Your task to perform on an android device: manage bookmarks in the chrome app Image 0: 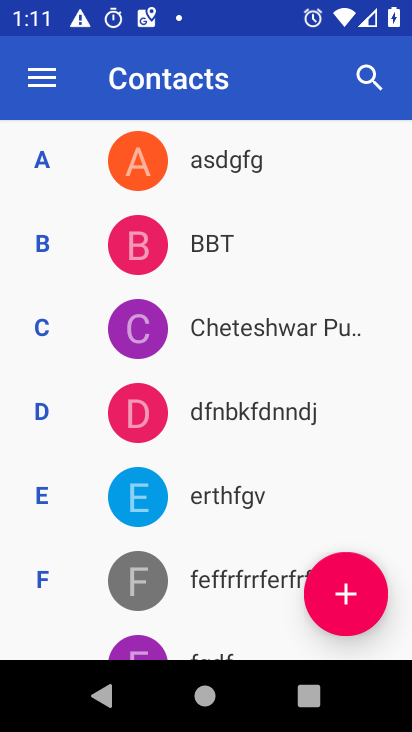
Step 0: press back button
Your task to perform on an android device: manage bookmarks in the chrome app Image 1: 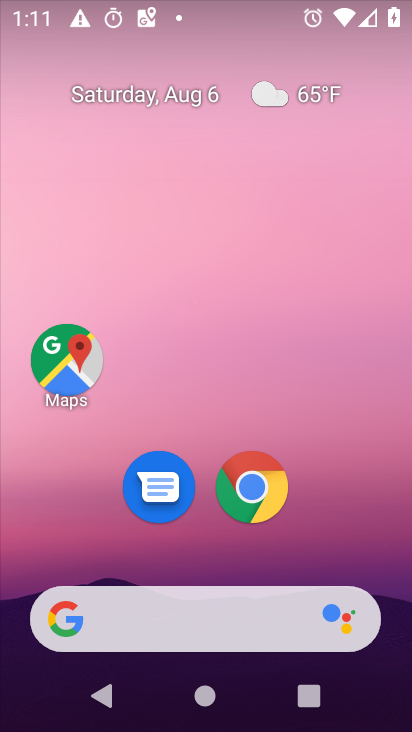
Step 1: click (249, 484)
Your task to perform on an android device: manage bookmarks in the chrome app Image 2: 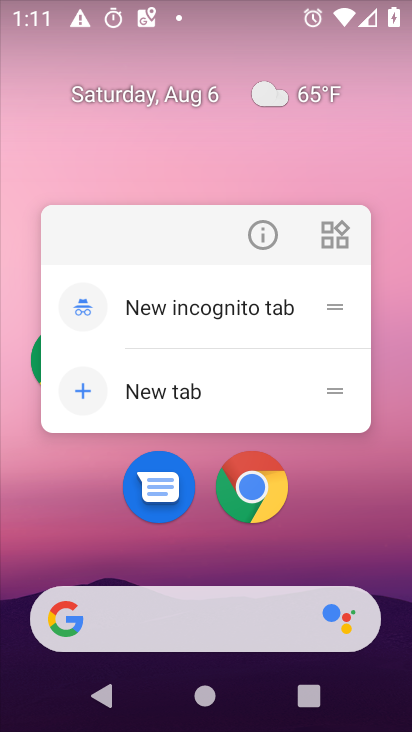
Step 2: click (254, 480)
Your task to perform on an android device: manage bookmarks in the chrome app Image 3: 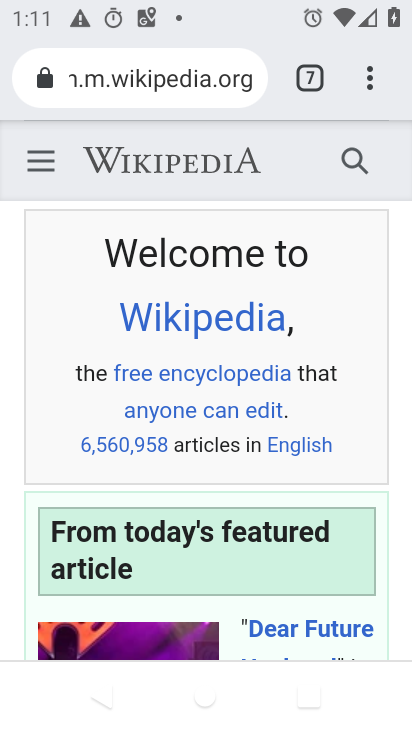
Step 3: drag from (377, 76) to (123, 545)
Your task to perform on an android device: manage bookmarks in the chrome app Image 4: 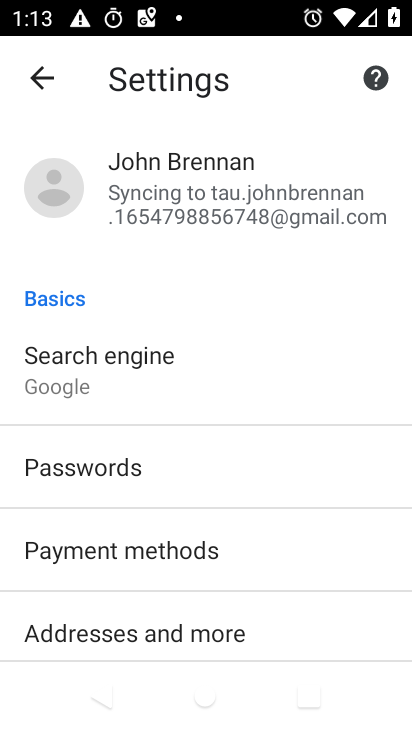
Step 4: click (31, 71)
Your task to perform on an android device: manage bookmarks in the chrome app Image 5: 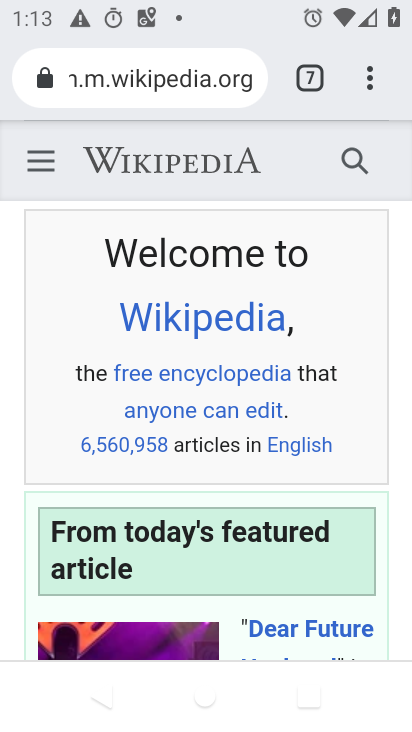
Step 5: drag from (370, 71) to (111, 290)
Your task to perform on an android device: manage bookmarks in the chrome app Image 6: 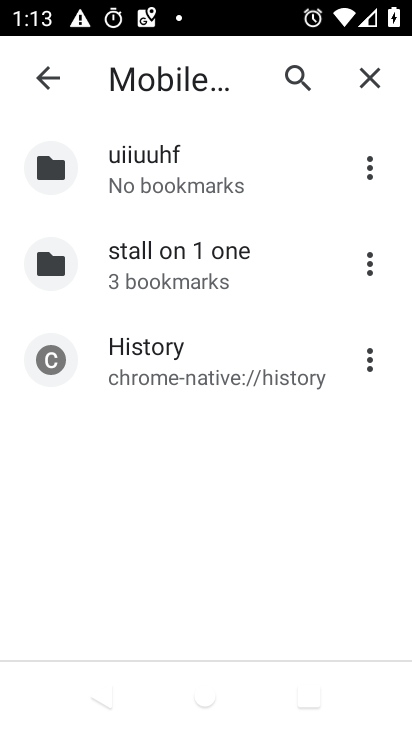
Step 6: click (187, 164)
Your task to perform on an android device: manage bookmarks in the chrome app Image 7: 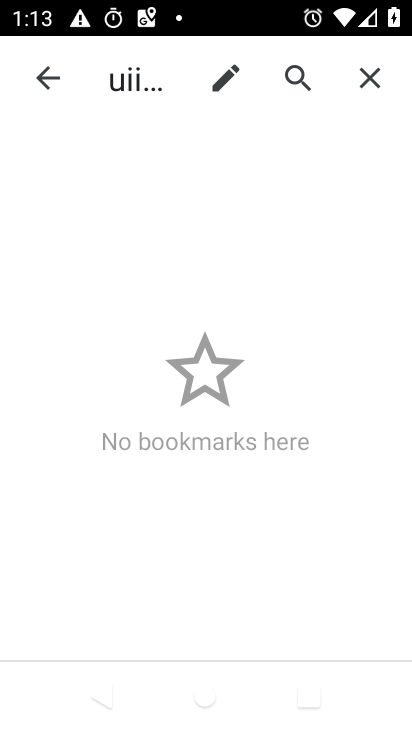
Step 7: click (46, 74)
Your task to perform on an android device: manage bookmarks in the chrome app Image 8: 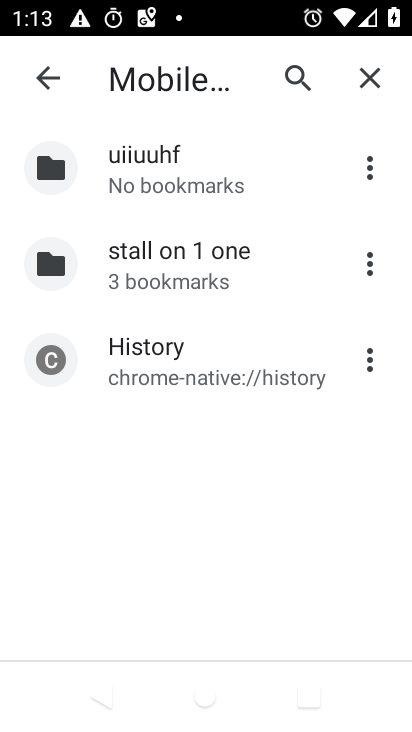
Step 8: click (367, 361)
Your task to perform on an android device: manage bookmarks in the chrome app Image 9: 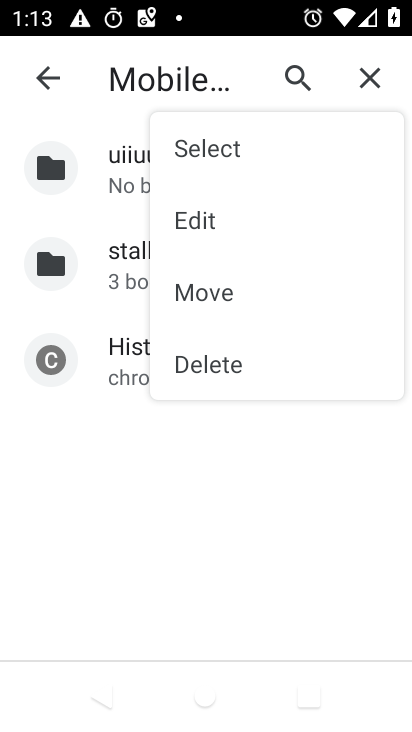
Step 9: click (234, 351)
Your task to perform on an android device: manage bookmarks in the chrome app Image 10: 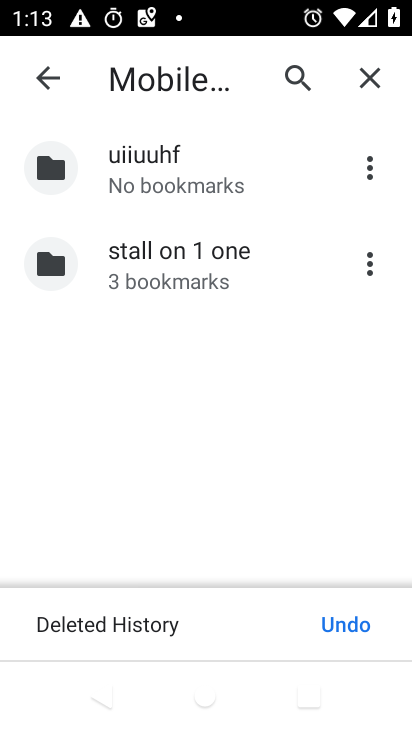
Step 10: task complete